Your task to perform on an android device: Open Youtube and go to "Your channel" Image 0: 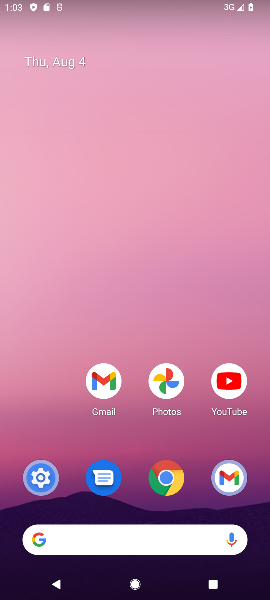
Step 0: press home button
Your task to perform on an android device: Open Youtube and go to "Your channel" Image 1: 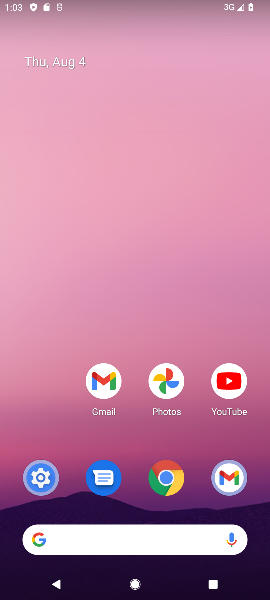
Step 1: press home button
Your task to perform on an android device: Open Youtube and go to "Your channel" Image 2: 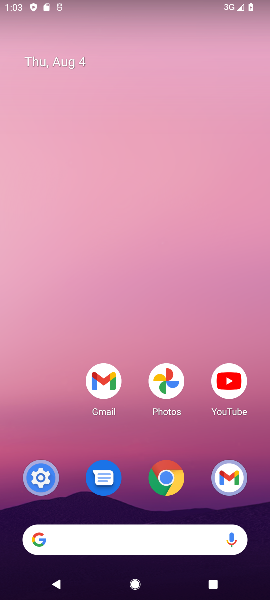
Step 2: drag from (62, 421) to (114, 227)
Your task to perform on an android device: Open Youtube and go to "Your channel" Image 3: 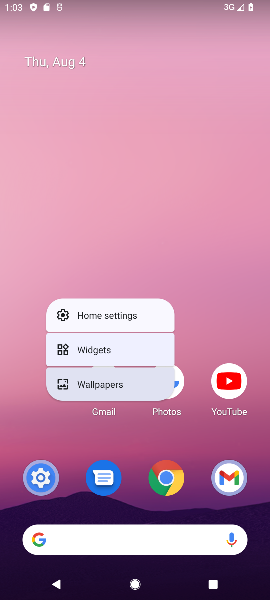
Step 3: click (67, 192)
Your task to perform on an android device: Open Youtube and go to "Your channel" Image 4: 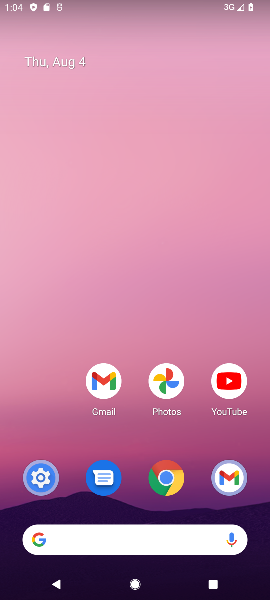
Step 4: click (238, 387)
Your task to perform on an android device: Open Youtube and go to "Your channel" Image 5: 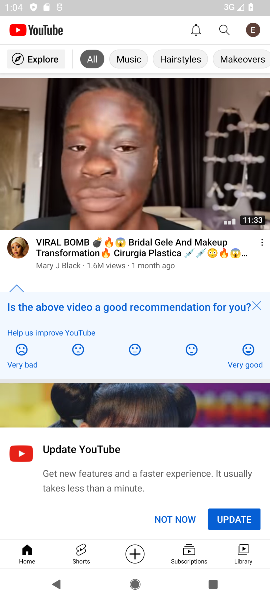
Step 5: click (254, 27)
Your task to perform on an android device: Open Youtube and go to "Your channel" Image 6: 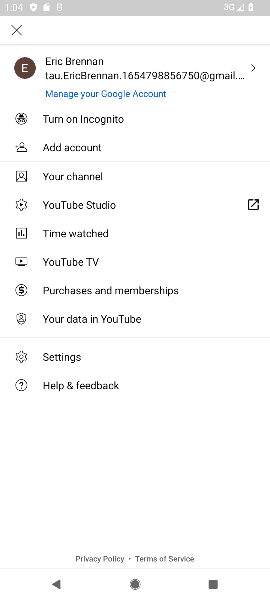
Step 6: click (62, 173)
Your task to perform on an android device: Open Youtube and go to "Your channel" Image 7: 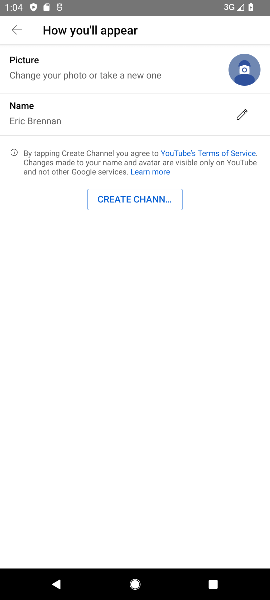
Step 7: task complete